Your task to perform on an android device: open a new tab in the chrome app Image 0: 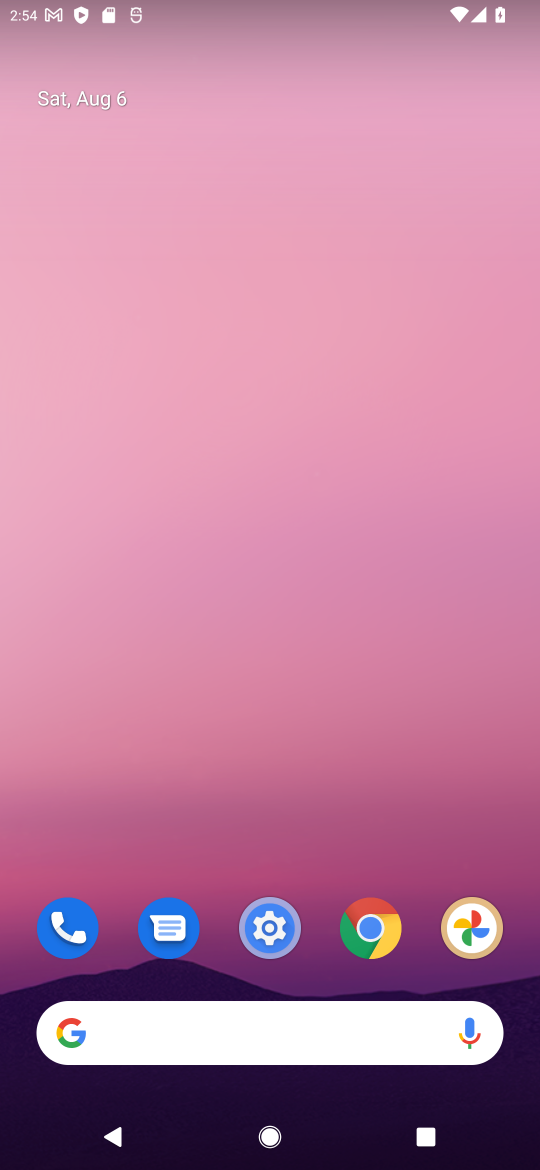
Step 0: drag from (201, 962) to (351, 245)
Your task to perform on an android device: open a new tab in the chrome app Image 1: 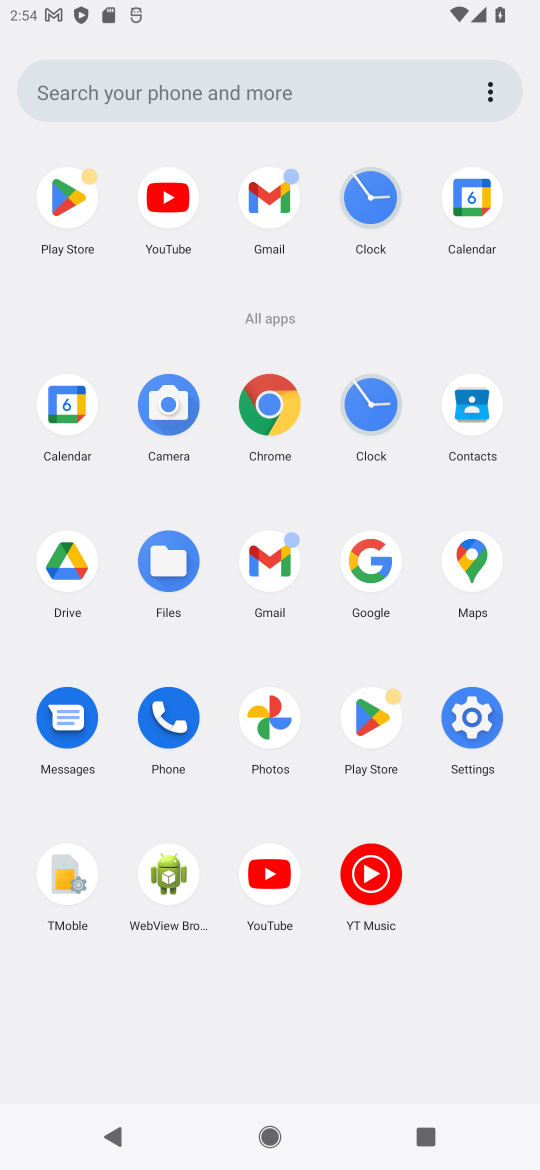
Step 1: click (253, 411)
Your task to perform on an android device: open a new tab in the chrome app Image 2: 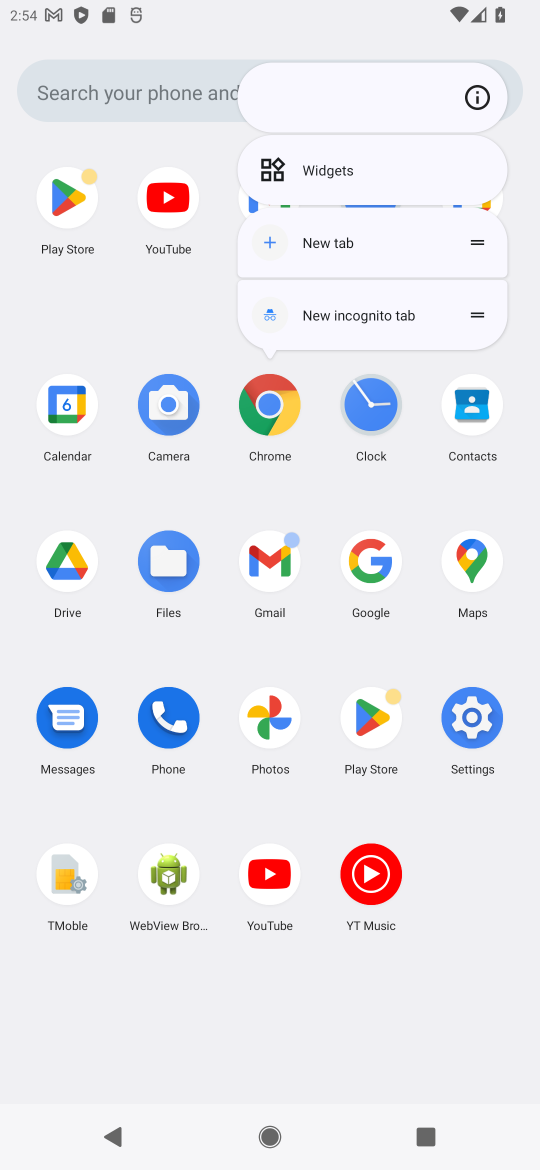
Step 2: click (472, 90)
Your task to perform on an android device: open a new tab in the chrome app Image 3: 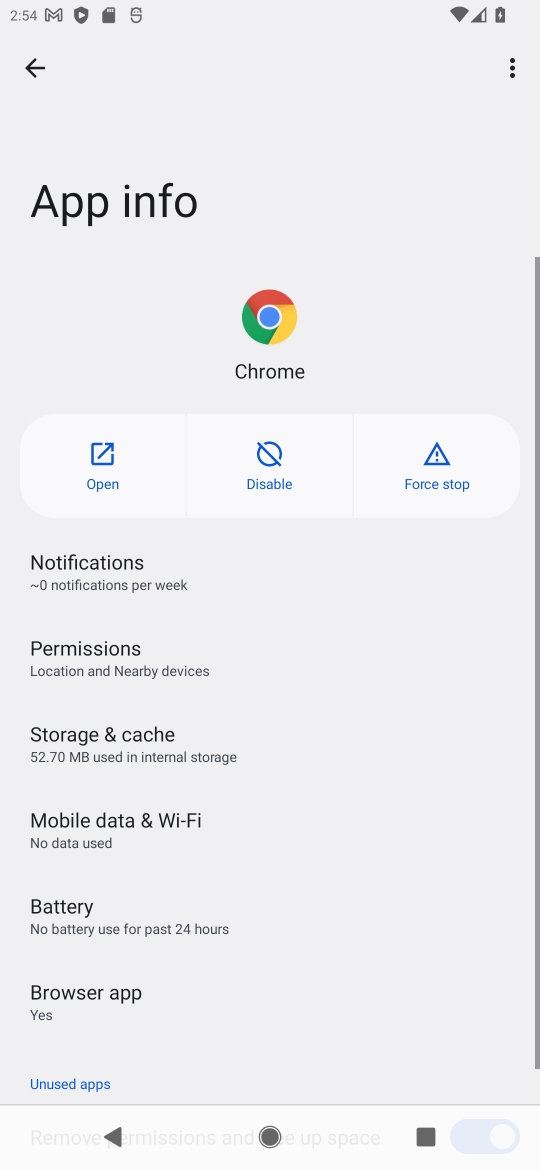
Step 3: click (108, 482)
Your task to perform on an android device: open a new tab in the chrome app Image 4: 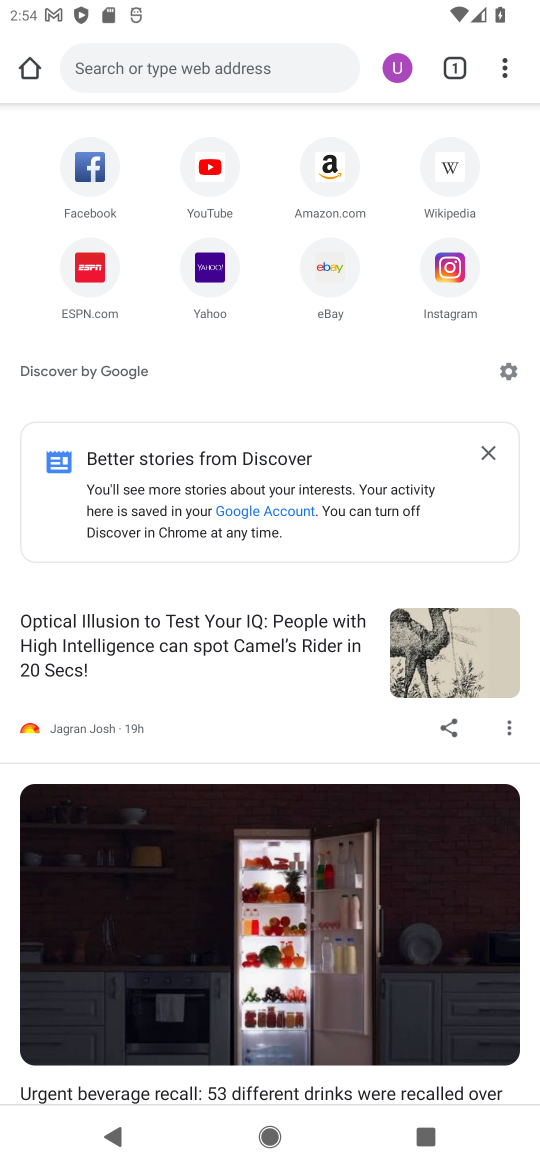
Step 4: task complete